Your task to perform on an android device: What is the recent news? Image 0: 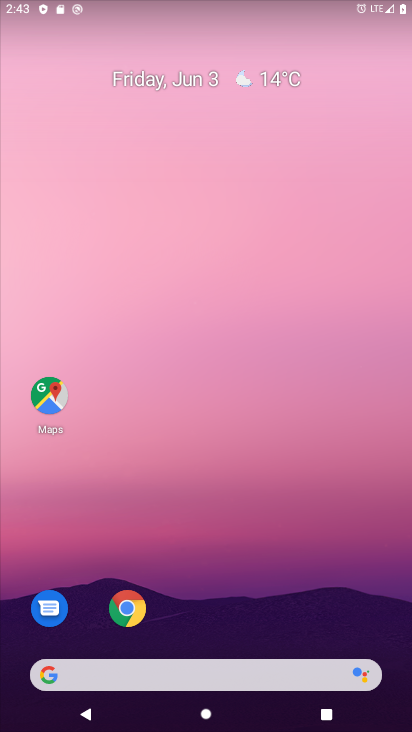
Step 0: drag from (209, 665) to (311, 70)
Your task to perform on an android device: What is the recent news? Image 1: 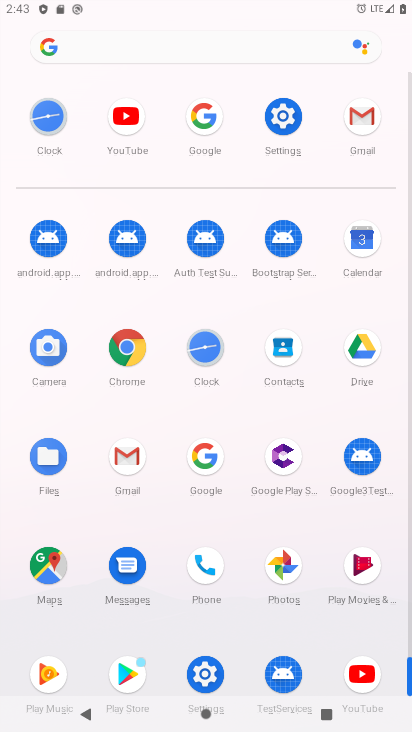
Step 1: click (204, 466)
Your task to perform on an android device: What is the recent news? Image 2: 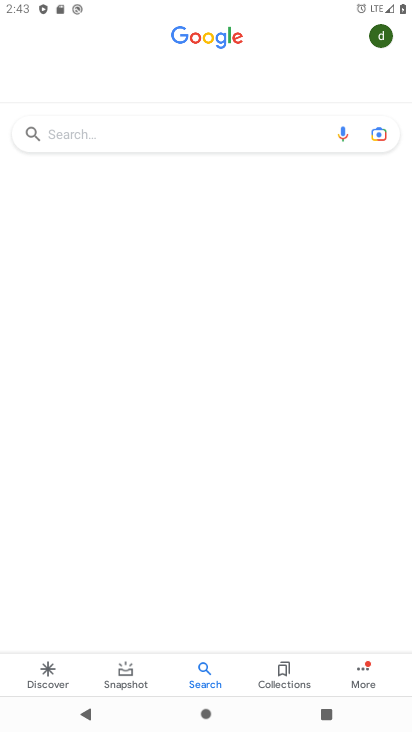
Step 2: click (38, 670)
Your task to perform on an android device: What is the recent news? Image 3: 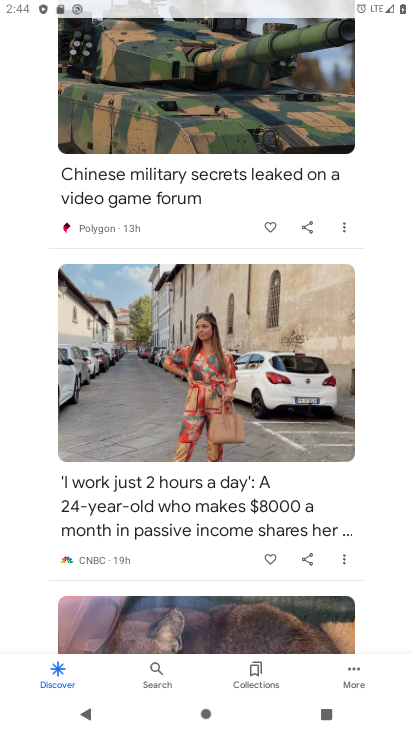
Step 3: task complete